Your task to perform on an android device: allow notifications from all sites in the chrome app Image 0: 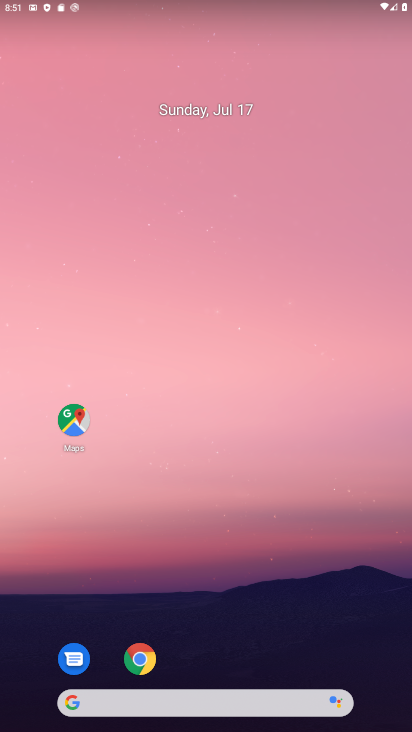
Step 0: drag from (196, 655) to (333, 92)
Your task to perform on an android device: allow notifications from all sites in the chrome app Image 1: 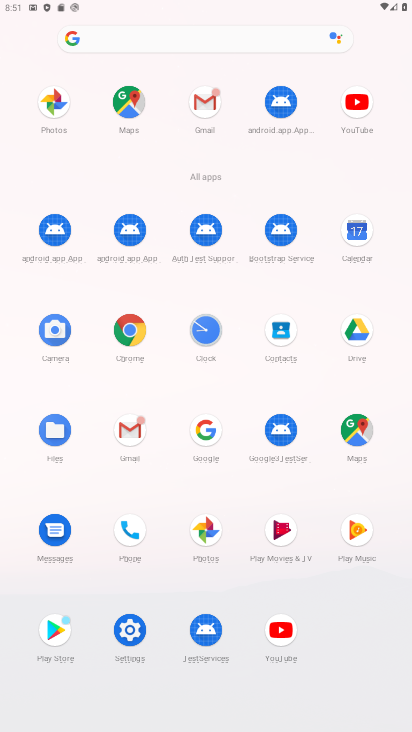
Step 1: click (137, 332)
Your task to perform on an android device: allow notifications from all sites in the chrome app Image 2: 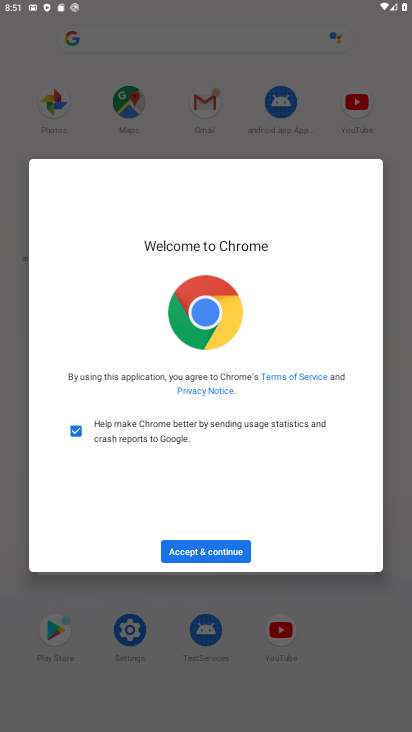
Step 2: click (194, 549)
Your task to perform on an android device: allow notifications from all sites in the chrome app Image 3: 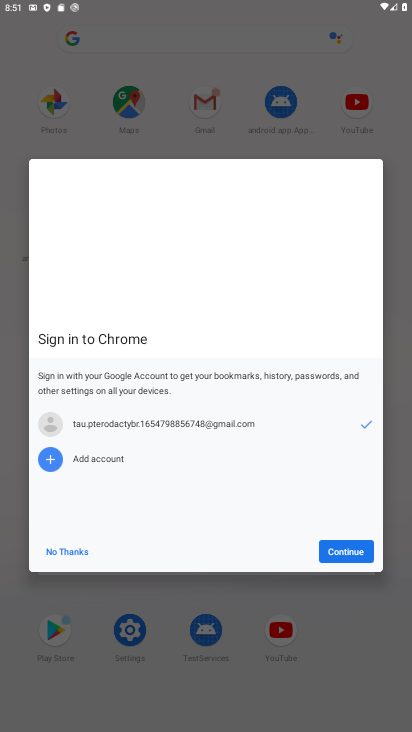
Step 3: click (355, 547)
Your task to perform on an android device: allow notifications from all sites in the chrome app Image 4: 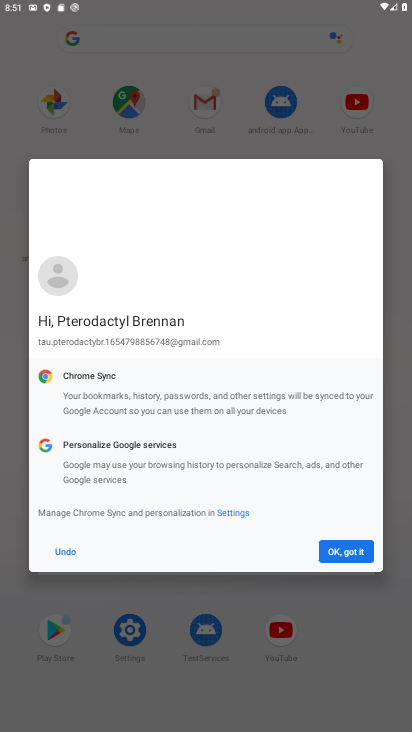
Step 4: click (355, 547)
Your task to perform on an android device: allow notifications from all sites in the chrome app Image 5: 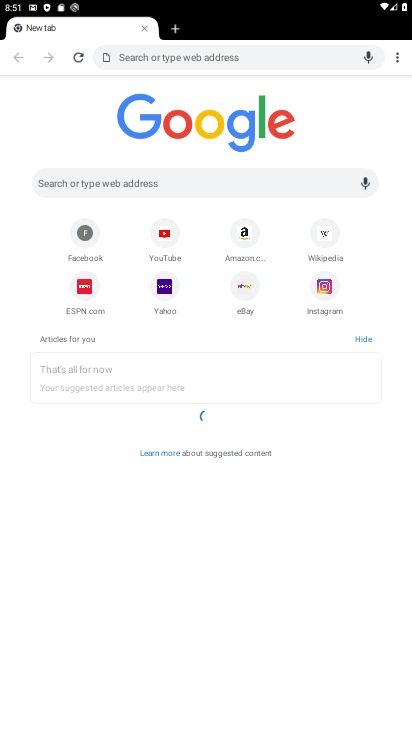
Step 5: click (402, 56)
Your task to perform on an android device: allow notifications from all sites in the chrome app Image 6: 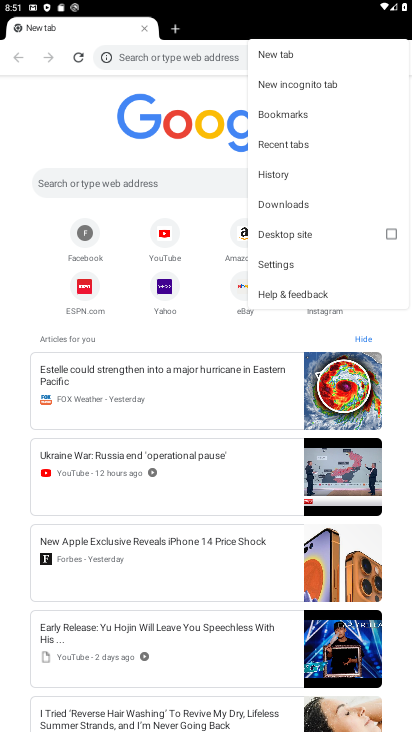
Step 6: click (293, 258)
Your task to perform on an android device: allow notifications from all sites in the chrome app Image 7: 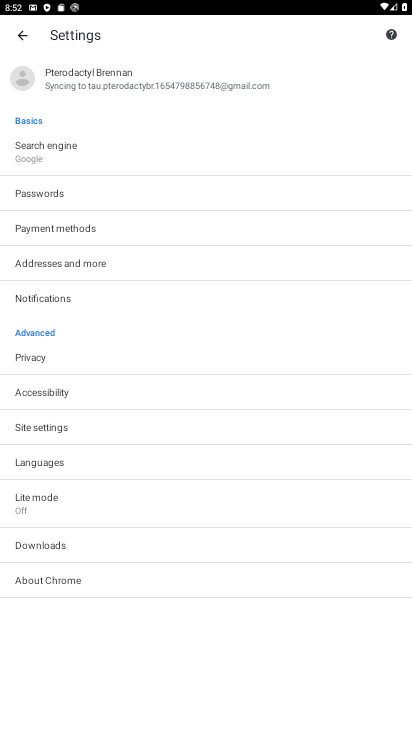
Step 7: click (71, 301)
Your task to perform on an android device: allow notifications from all sites in the chrome app Image 8: 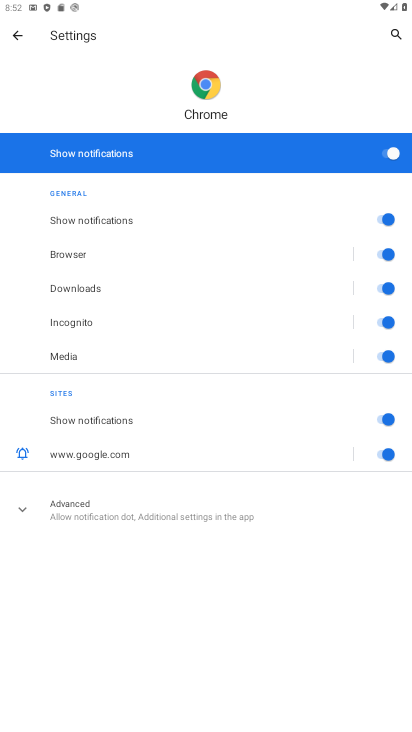
Step 8: click (71, 301)
Your task to perform on an android device: allow notifications from all sites in the chrome app Image 9: 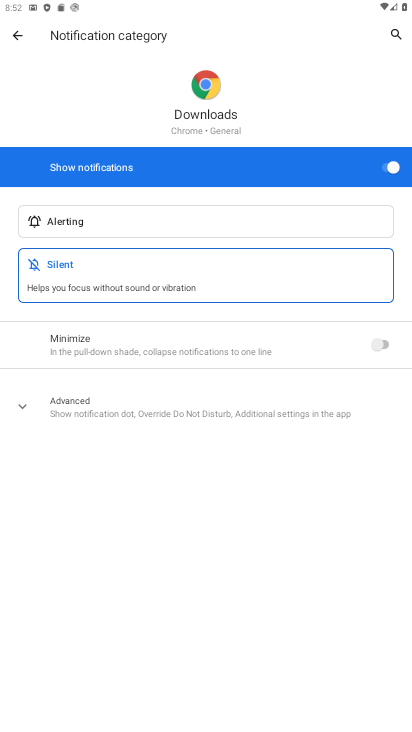
Step 9: click (268, 409)
Your task to perform on an android device: allow notifications from all sites in the chrome app Image 10: 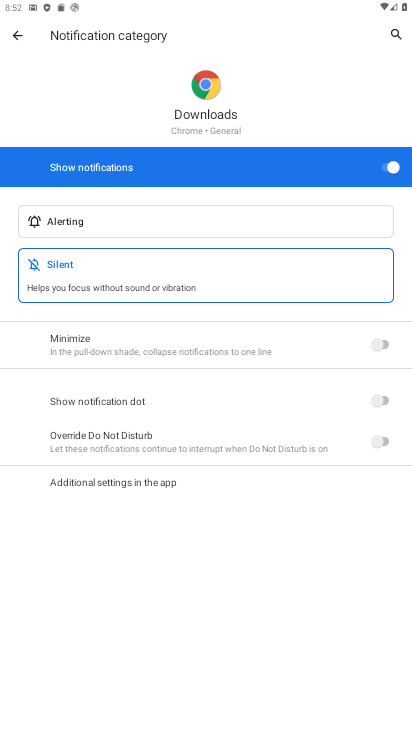
Step 10: click (142, 497)
Your task to perform on an android device: allow notifications from all sites in the chrome app Image 11: 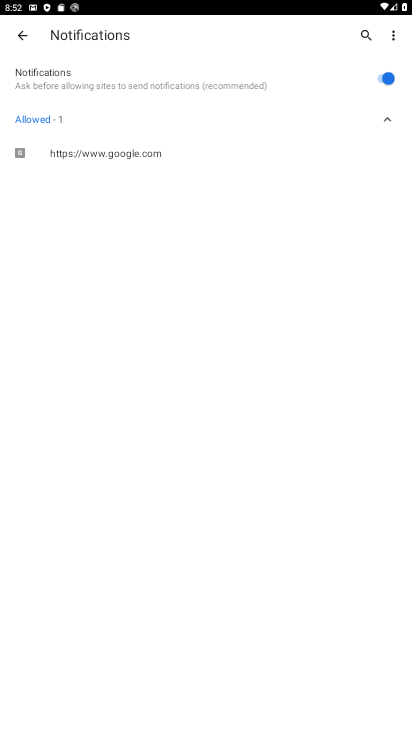
Step 11: task complete